Your task to perform on an android device: turn off location Image 0: 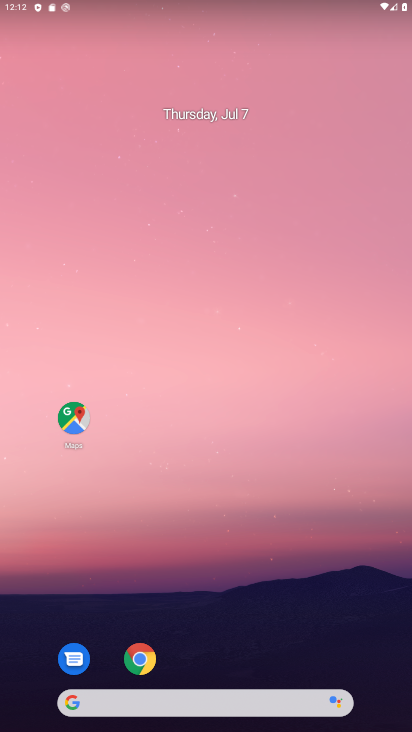
Step 0: drag from (253, 571) to (187, 148)
Your task to perform on an android device: turn off location Image 1: 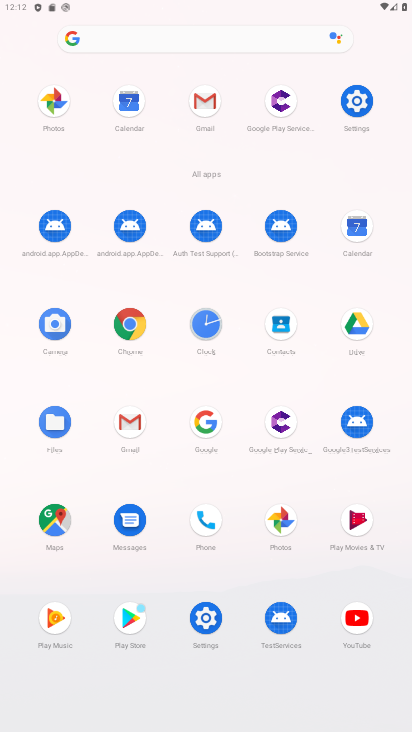
Step 1: click (359, 103)
Your task to perform on an android device: turn off location Image 2: 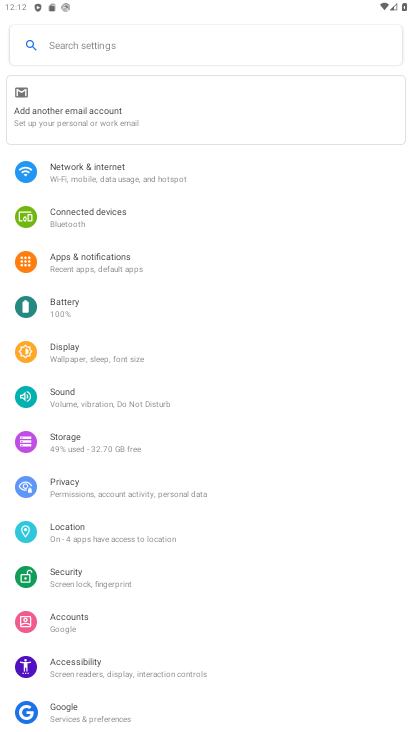
Step 2: click (71, 528)
Your task to perform on an android device: turn off location Image 3: 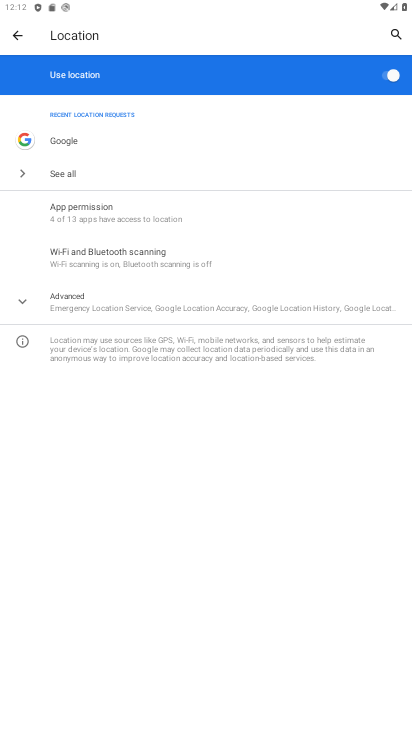
Step 3: click (394, 77)
Your task to perform on an android device: turn off location Image 4: 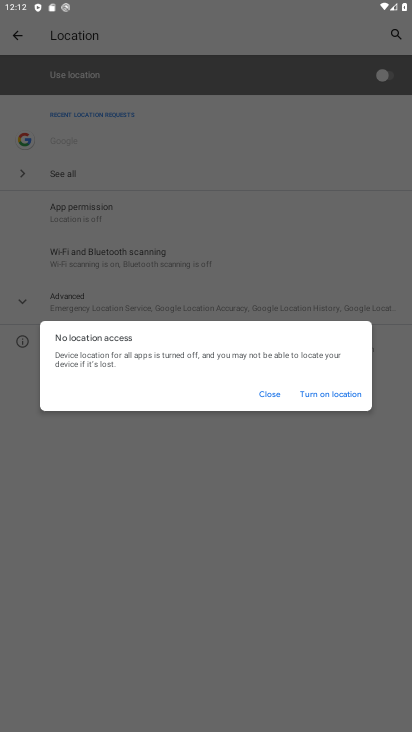
Step 4: click (263, 392)
Your task to perform on an android device: turn off location Image 5: 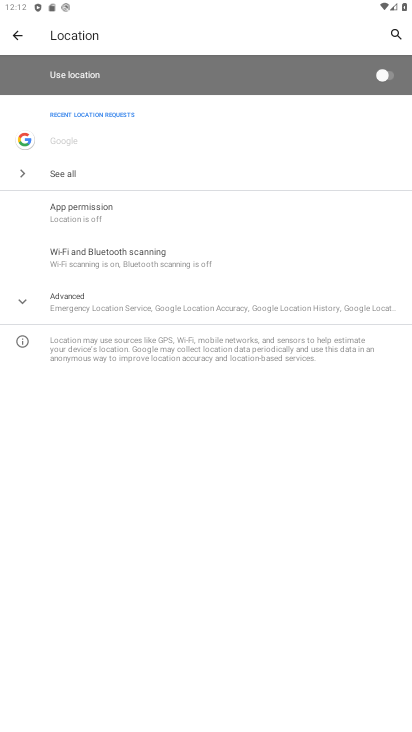
Step 5: task complete